Your task to perform on an android device: toggle notification dots Image 0: 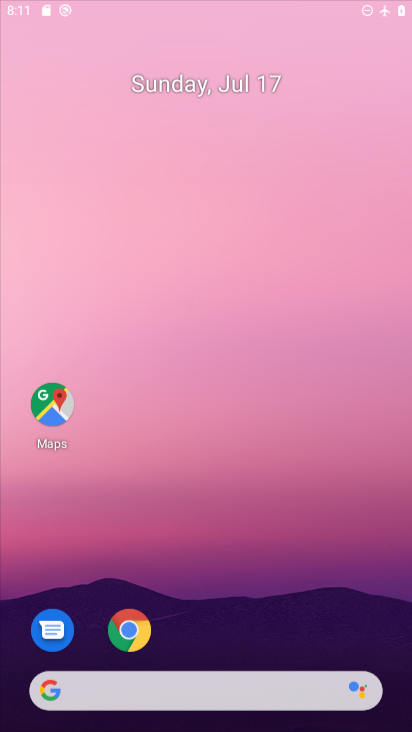
Step 0: click (263, 107)
Your task to perform on an android device: toggle notification dots Image 1: 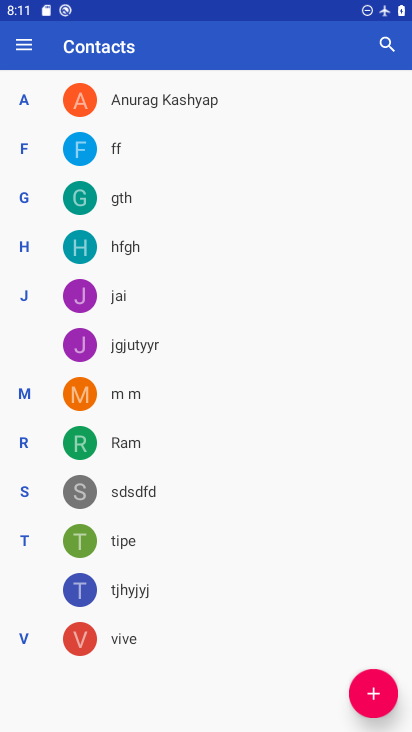
Step 1: click (190, 618)
Your task to perform on an android device: toggle notification dots Image 2: 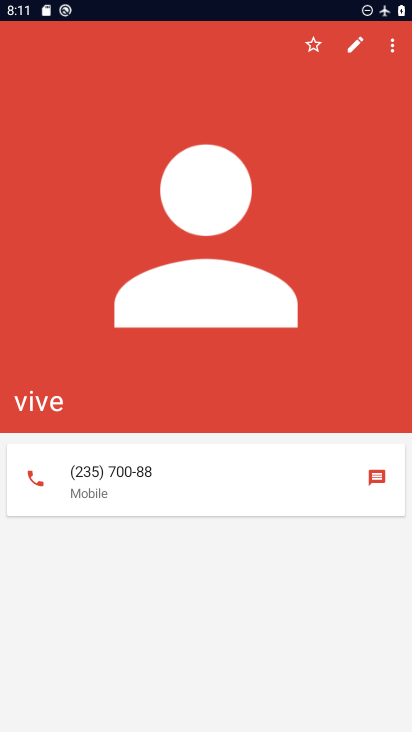
Step 2: press home button
Your task to perform on an android device: toggle notification dots Image 3: 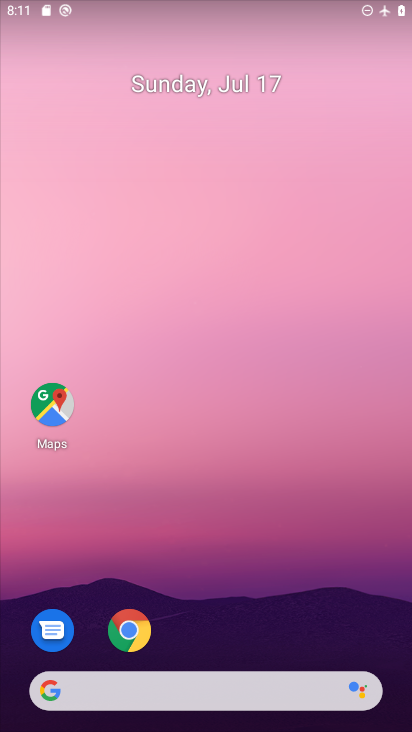
Step 3: drag from (252, 611) to (236, 33)
Your task to perform on an android device: toggle notification dots Image 4: 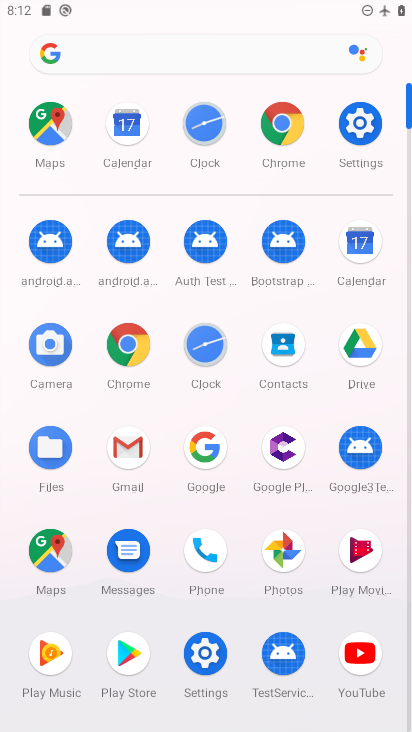
Step 4: click (362, 138)
Your task to perform on an android device: toggle notification dots Image 5: 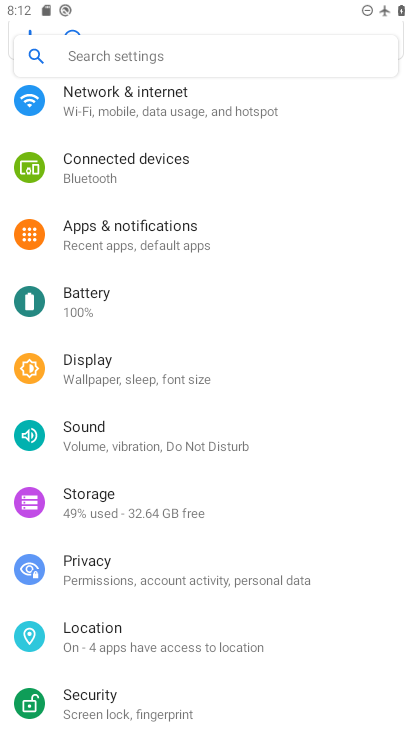
Step 5: click (188, 54)
Your task to perform on an android device: toggle notification dots Image 6: 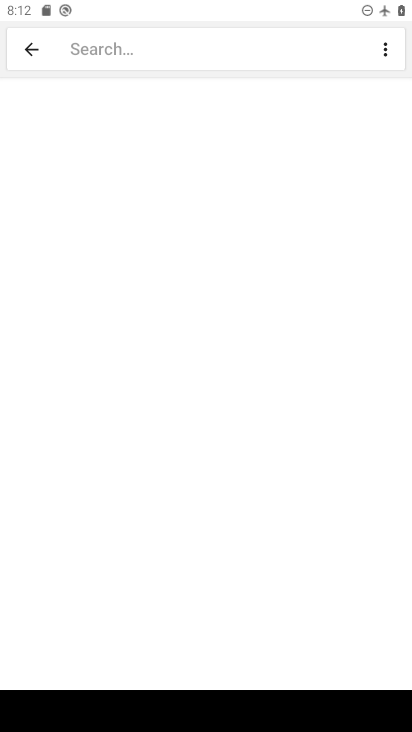
Step 6: type "notification dots "
Your task to perform on an android device: toggle notification dots Image 7: 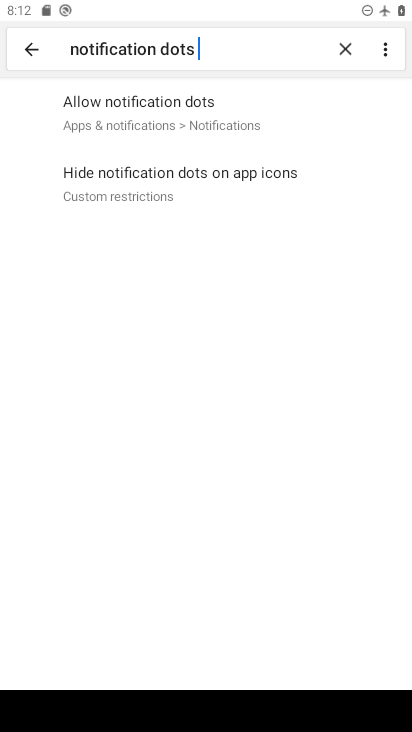
Step 7: click (204, 115)
Your task to perform on an android device: toggle notification dots Image 8: 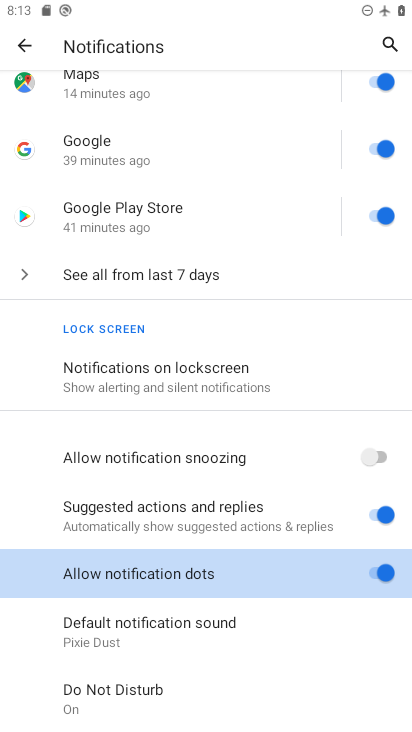
Step 8: click (374, 582)
Your task to perform on an android device: toggle notification dots Image 9: 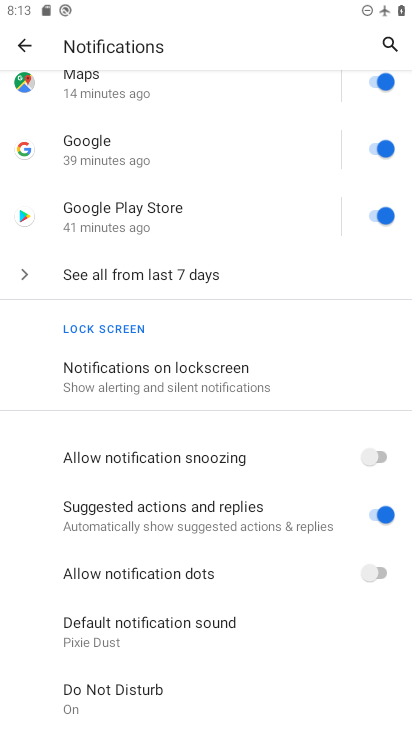
Step 9: task complete